Your task to perform on an android device: open app "Etsy: Buy & Sell Unique Items" Image 0: 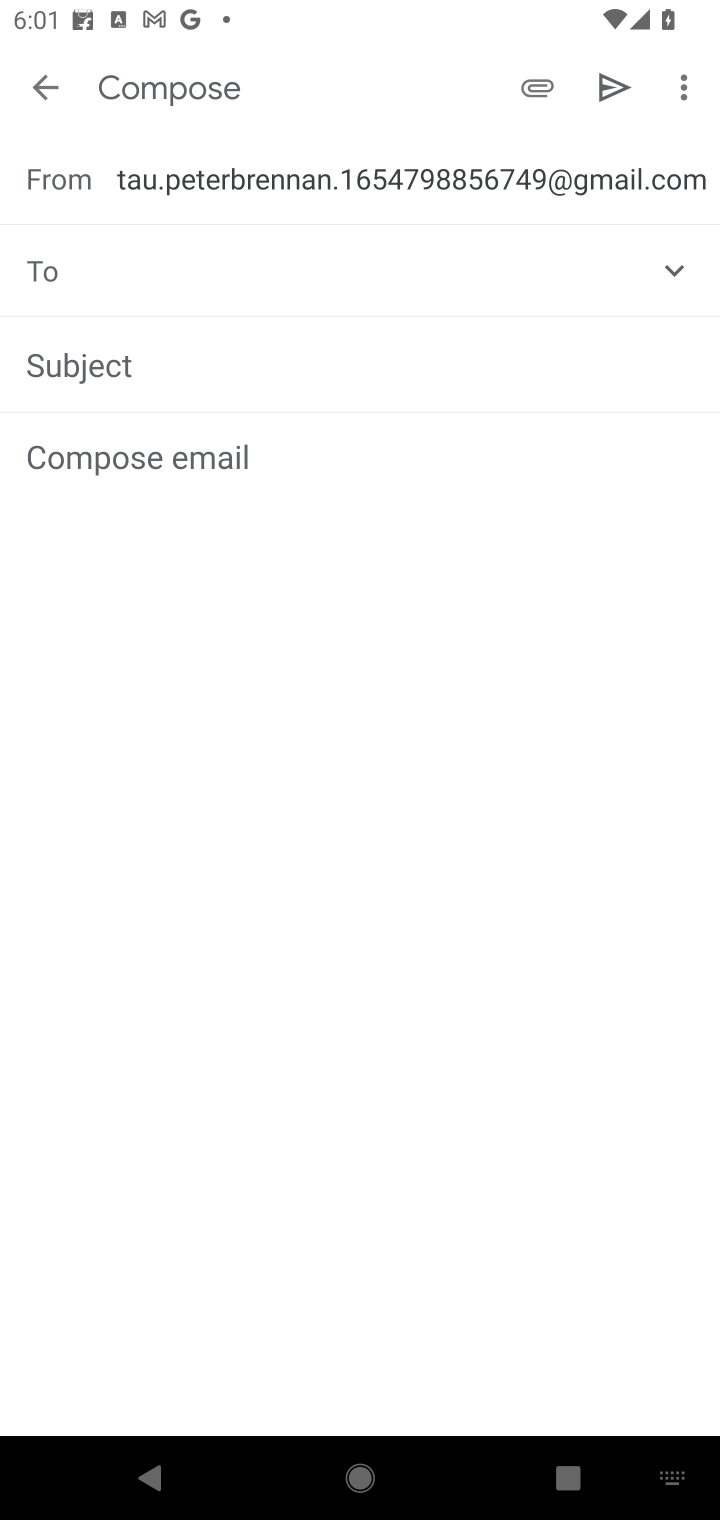
Step 0: press home button
Your task to perform on an android device: open app "Etsy: Buy & Sell Unique Items" Image 1: 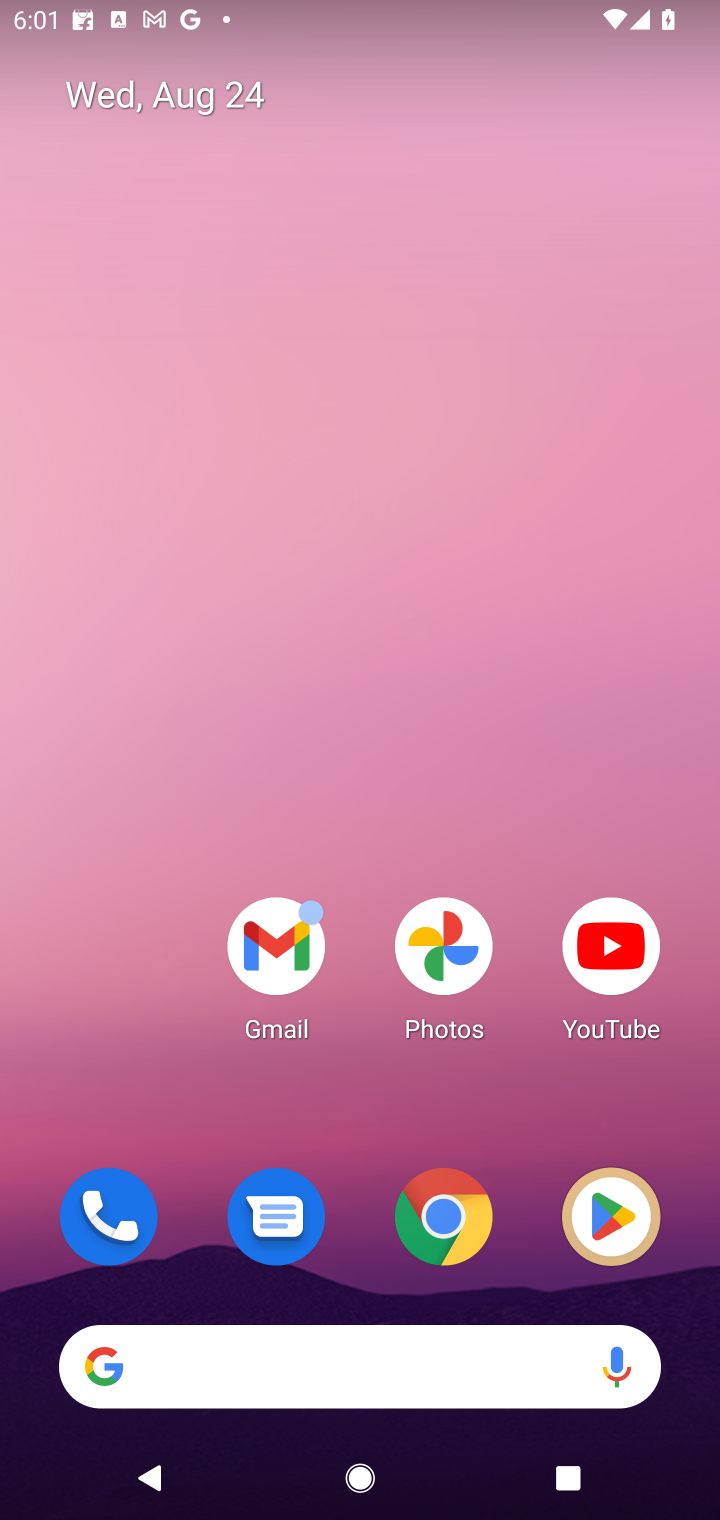
Step 1: click (585, 1183)
Your task to perform on an android device: open app "Etsy: Buy & Sell Unique Items" Image 2: 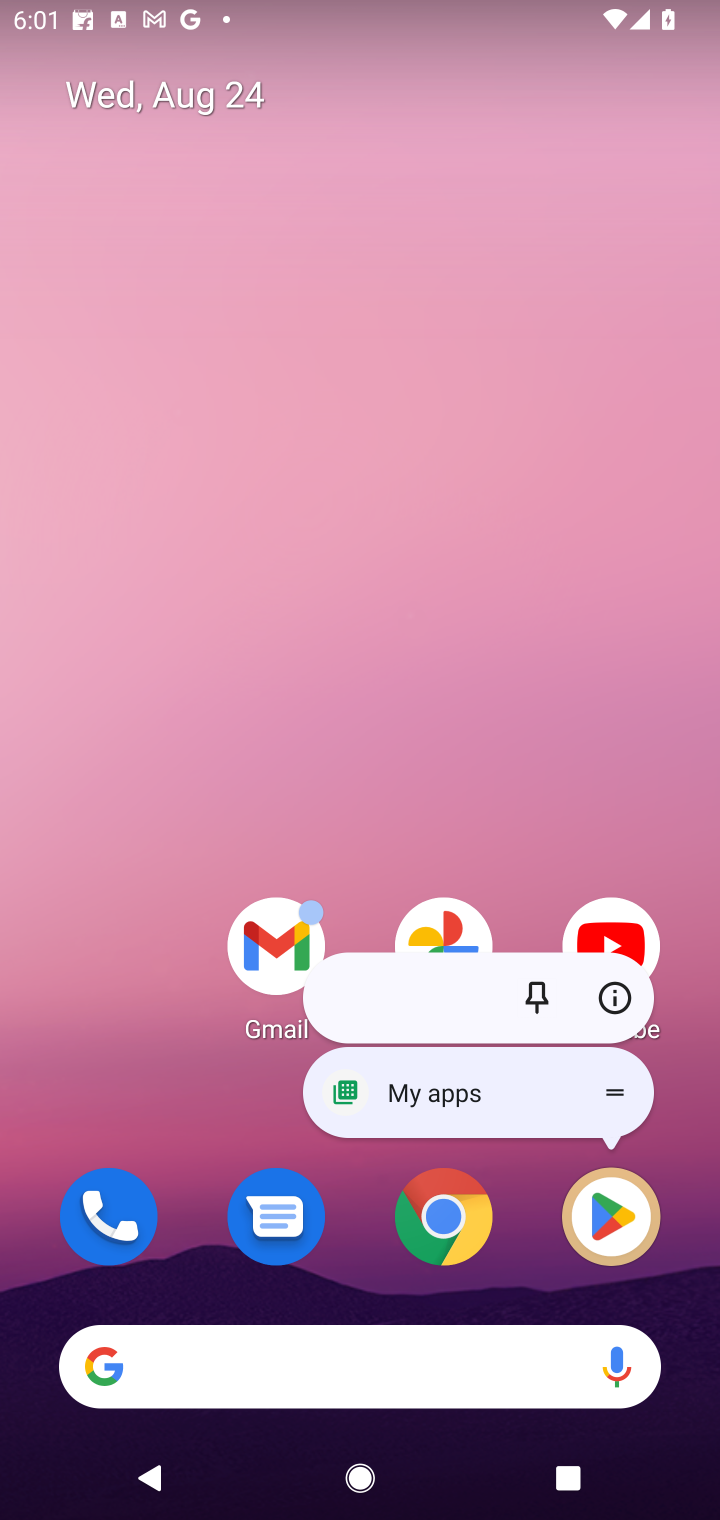
Step 2: click (585, 1192)
Your task to perform on an android device: open app "Etsy: Buy & Sell Unique Items" Image 3: 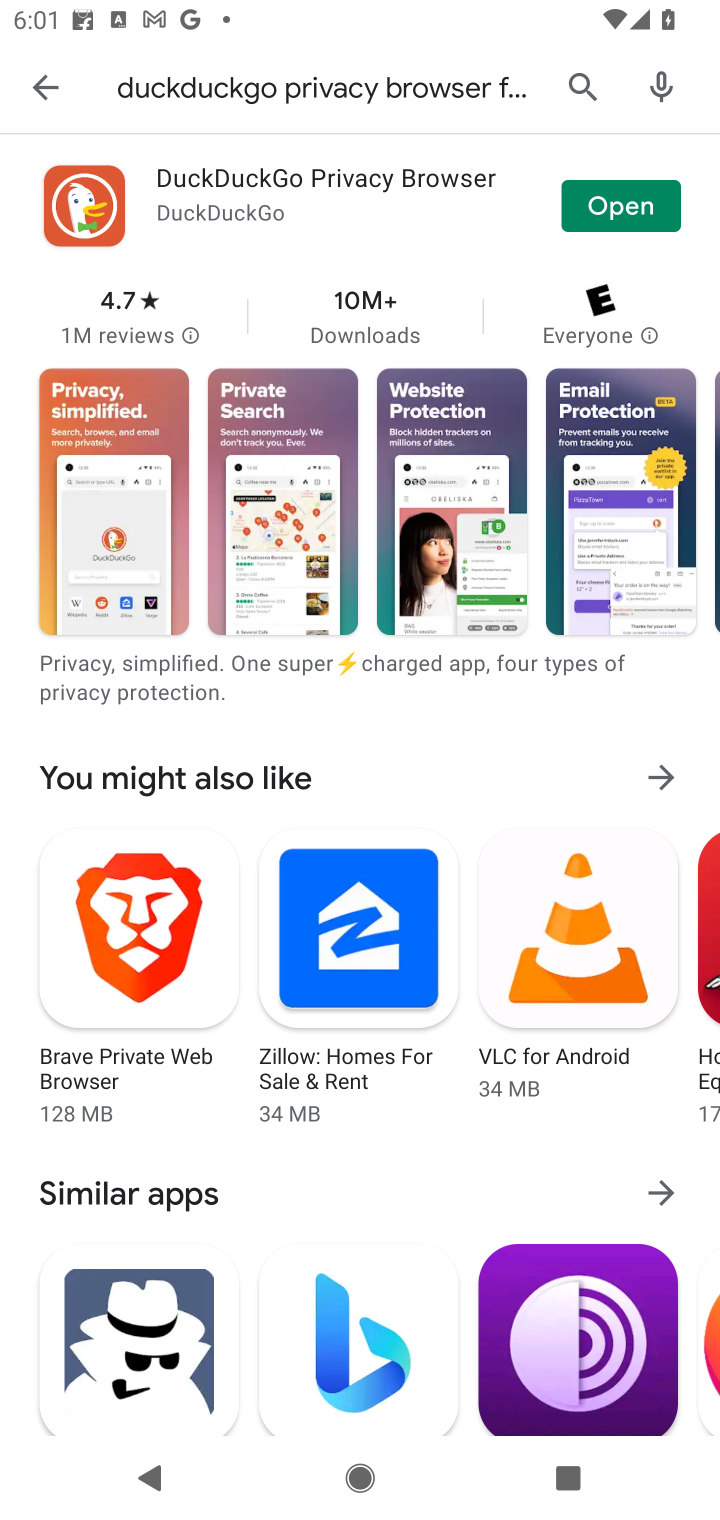
Step 3: click (567, 72)
Your task to perform on an android device: open app "Etsy: Buy & Sell Unique Items" Image 4: 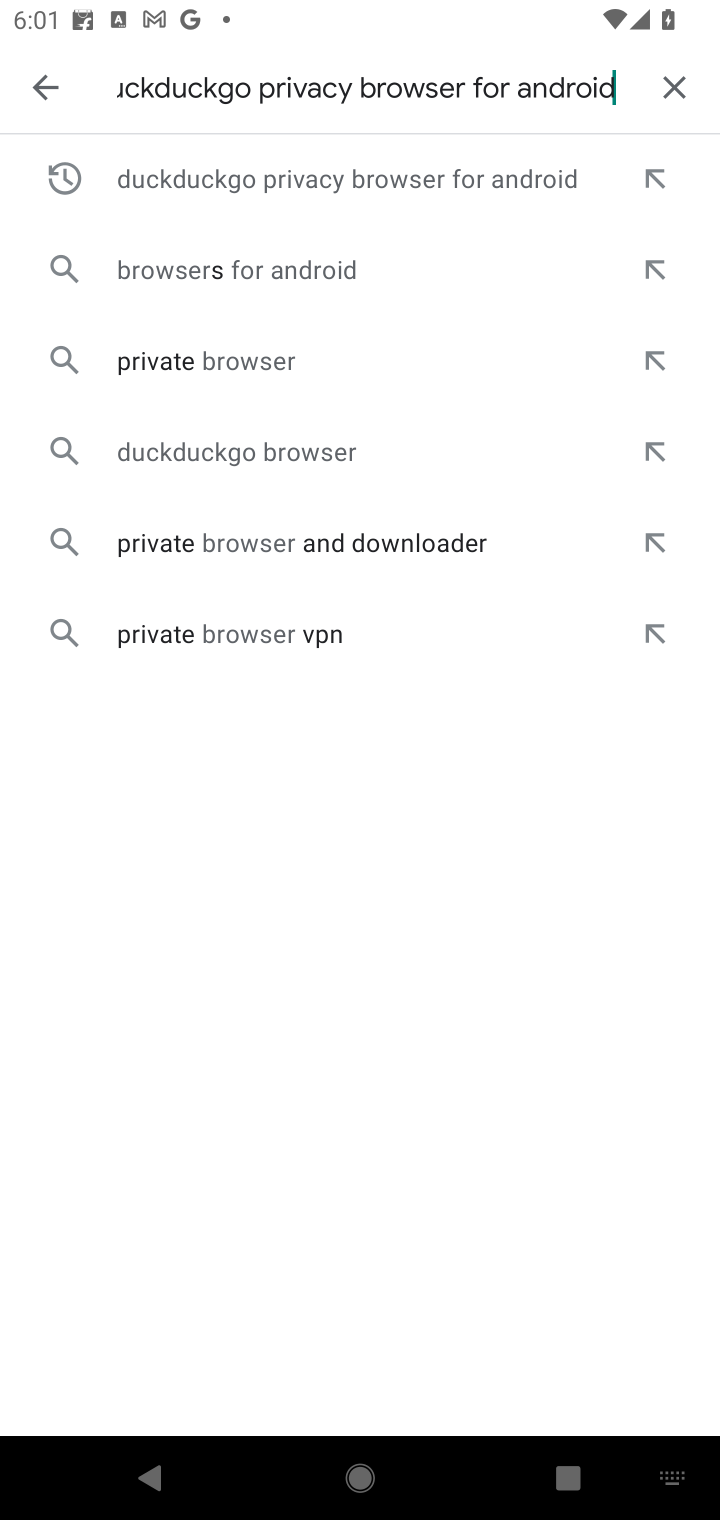
Step 4: click (670, 98)
Your task to perform on an android device: open app "Etsy: Buy & Sell Unique Items" Image 5: 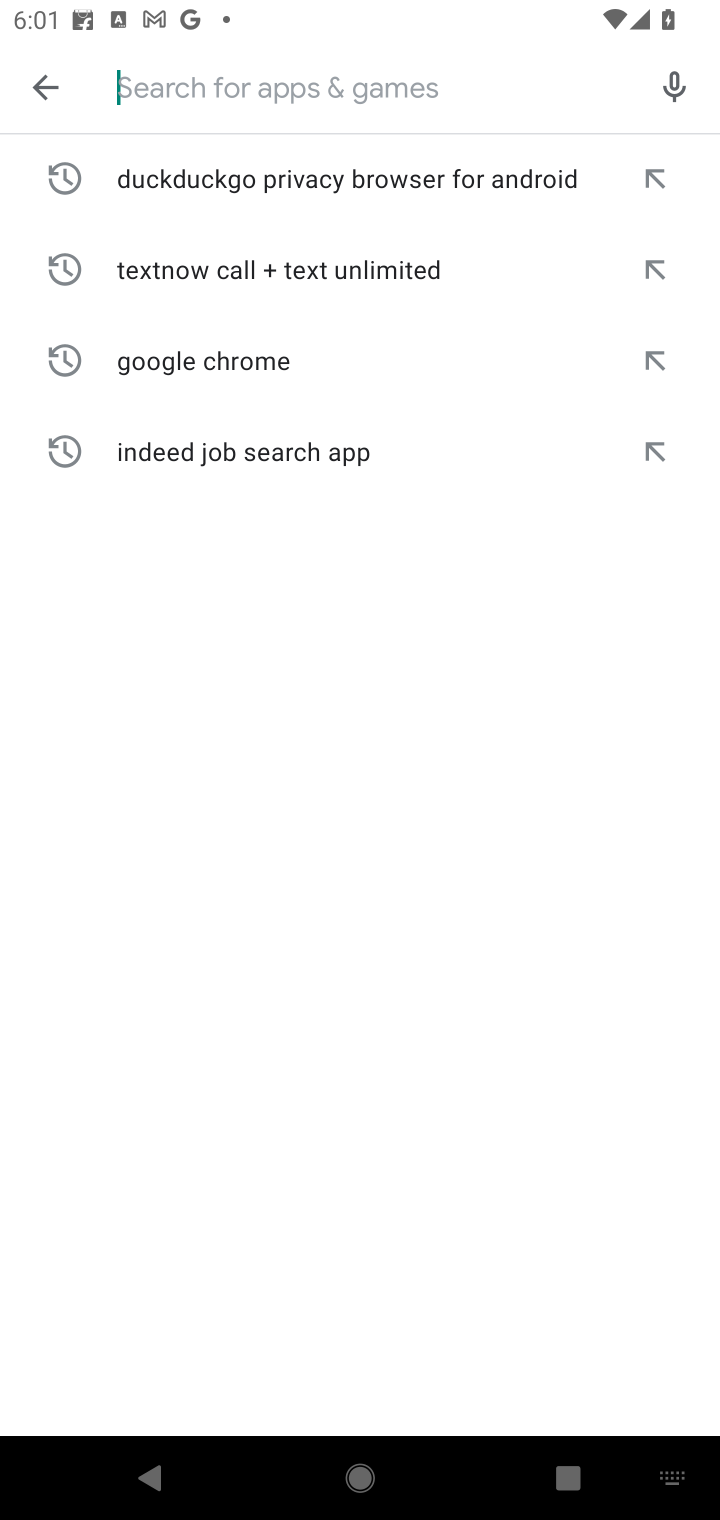
Step 5: type "Etsy: Buy & Sell Unique Items"
Your task to perform on an android device: open app "Etsy: Buy & Sell Unique Items" Image 6: 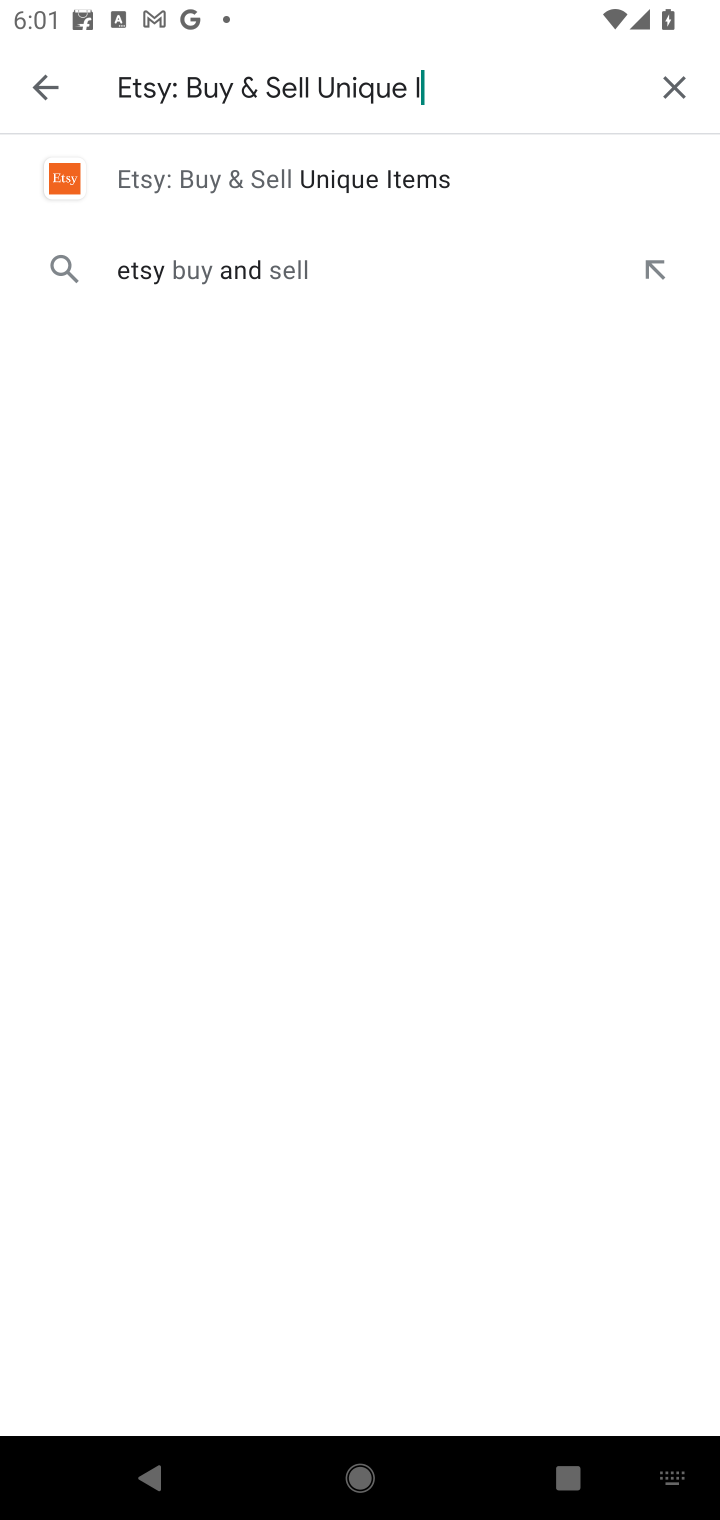
Step 6: type ""
Your task to perform on an android device: open app "Etsy: Buy & Sell Unique Items" Image 7: 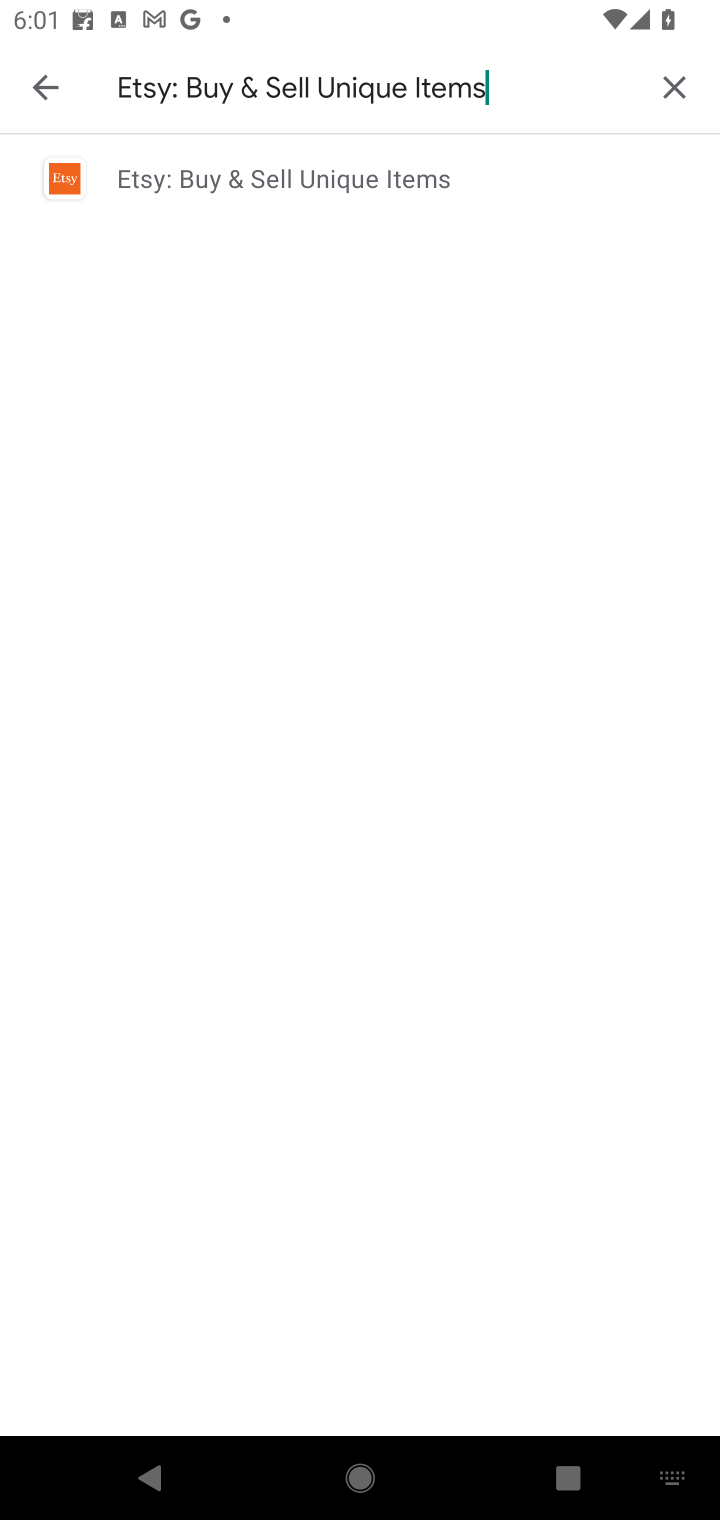
Step 7: click (332, 174)
Your task to perform on an android device: open app "Etsy: Buy & Sell Unique Items" Image 8: 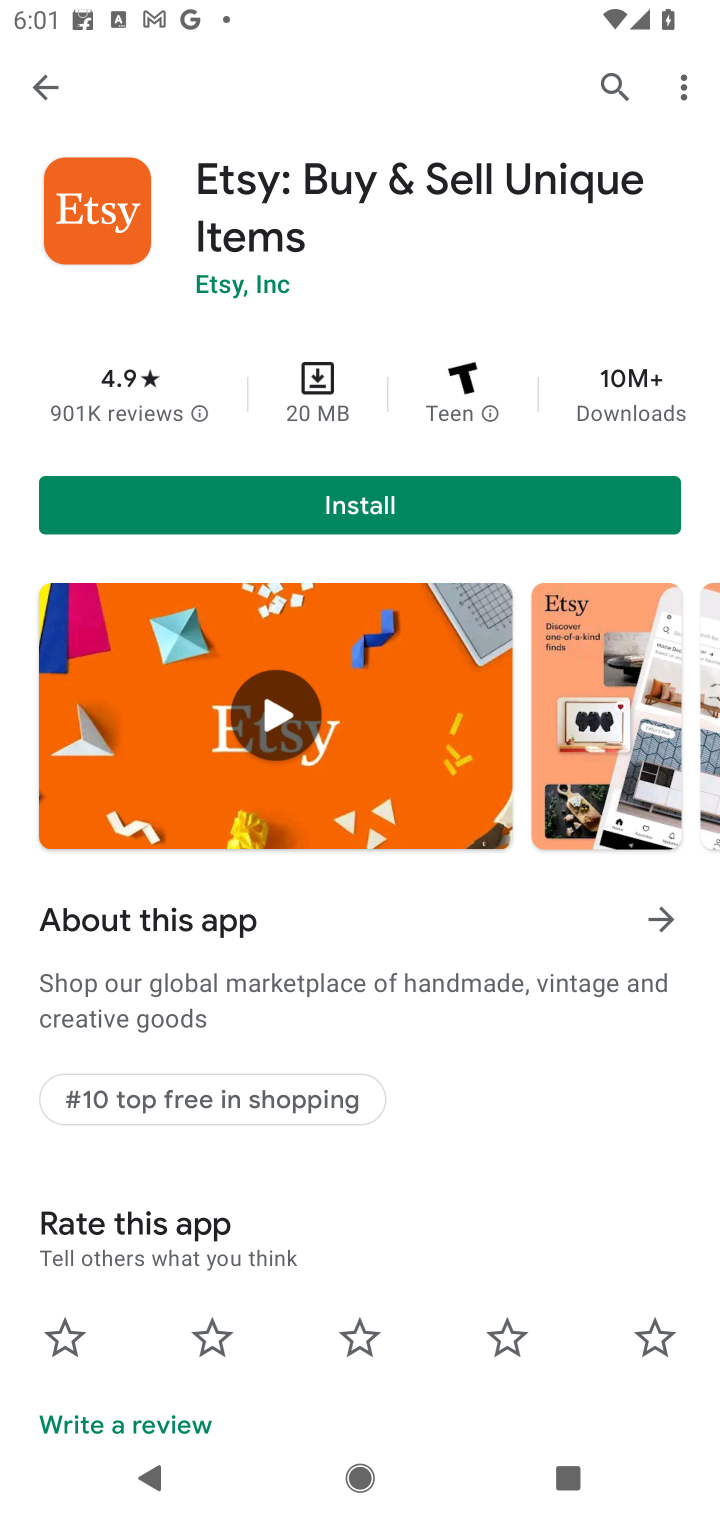
Step 8: task complete